Your task to perform on an android device: add a label to a message in the gmail app Image 0: 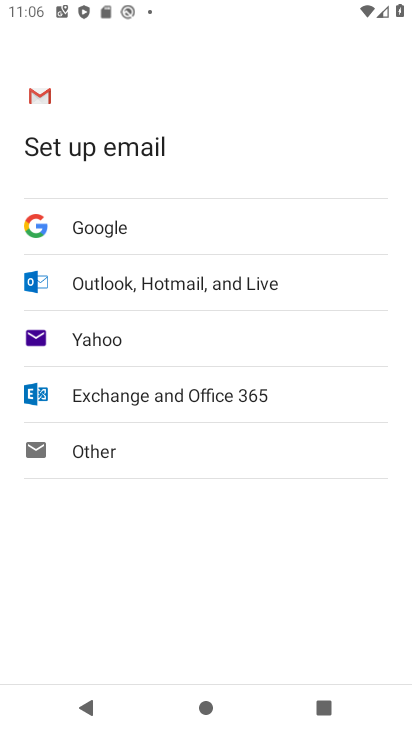
Step 0: press home button
Your task to perform on an android device: add a label to a message in the gmail app Image 1: 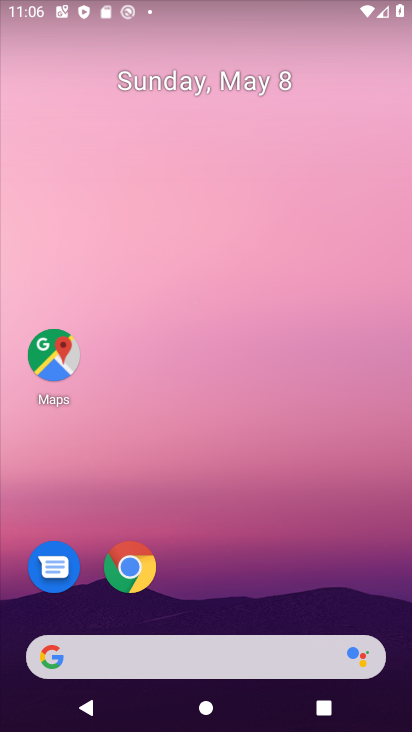
Step 1: drag from (207, 613) to (259, 80)
Your task to perform on an android device: add a label to a message in the gmail app Image 2: 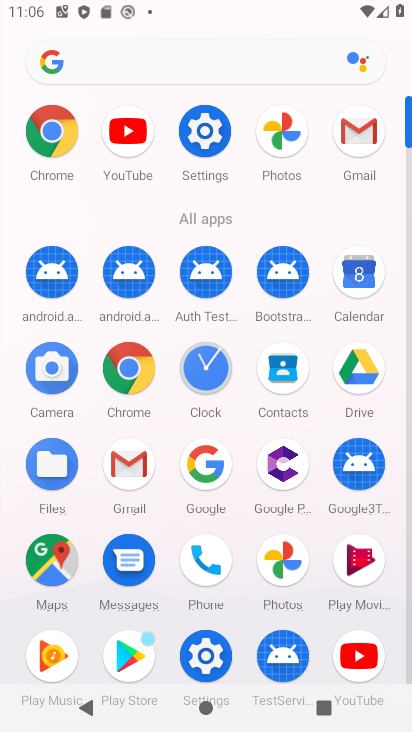
Step 2: click (128, 457)
Your task to perform on an android device: add a label to a message in the gmail app Image 3: 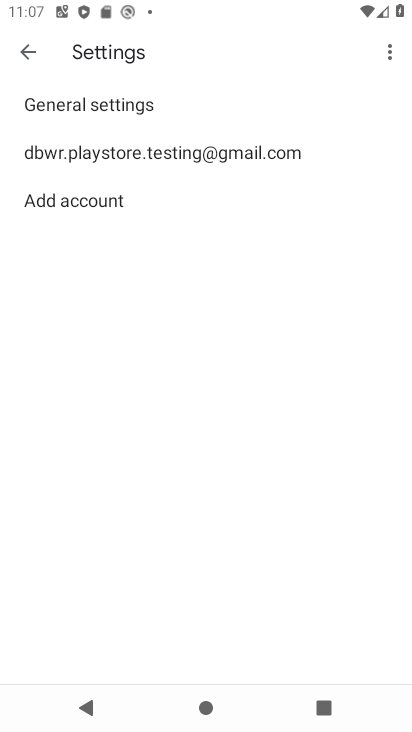
Step 3: click (36, 49)
Your task to perform on an android device: add a label to a message in the gmail app Image 4: 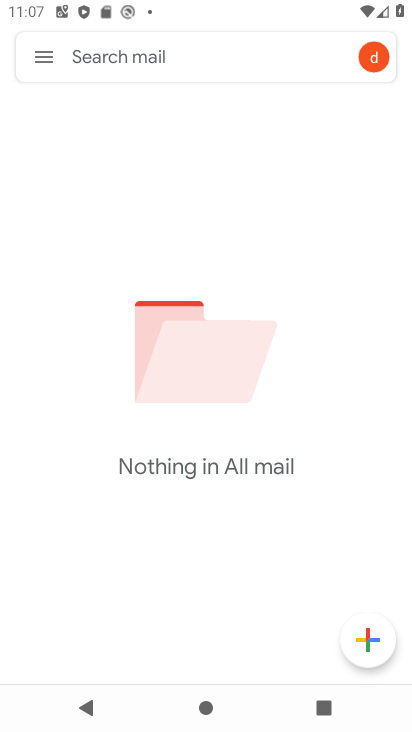
Step 4: click (45, 63)
Your task to perform on an android device: add a label to a message in the gmail app Image 5: 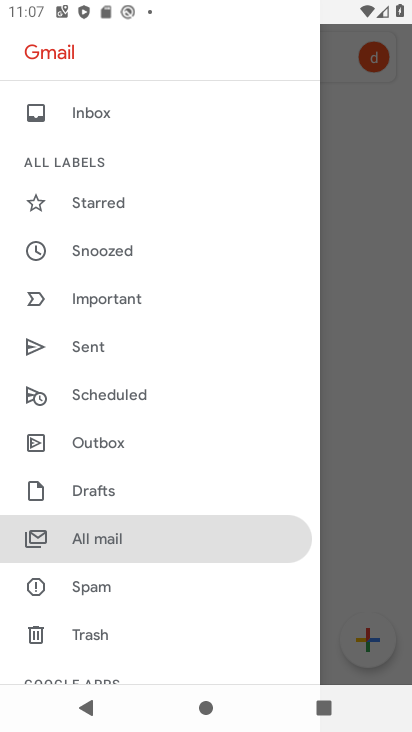
Step 5: task complete